Your task to perform on an android device: Go to Maps Image 0: 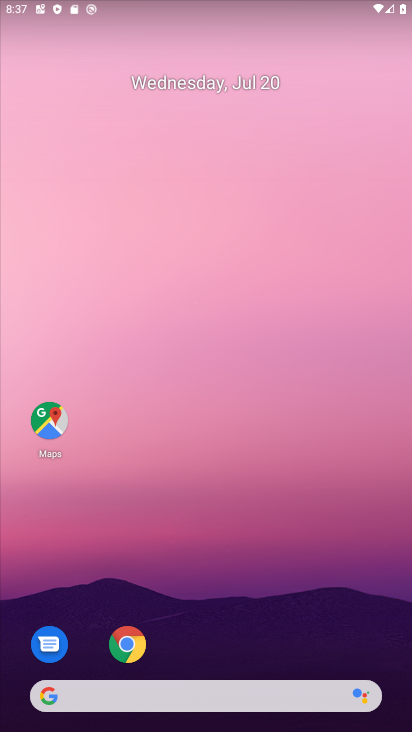
Step 0: click (59, 415)
Your task to perform on an android device: Go to Maps Image 1: 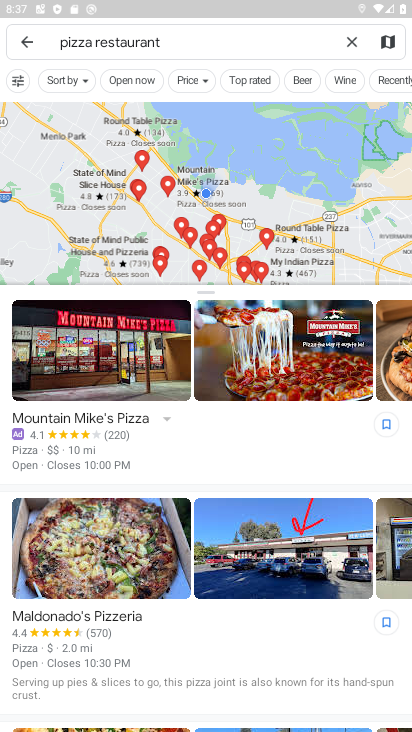
Step 1: task complete